Your task to perform on an android device: delete the emails in spam in the gmail app Image 0: 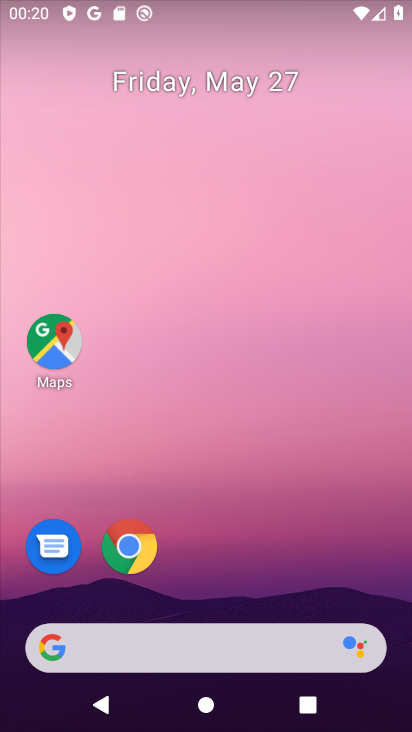
Step 0: drag from (319, 515) to (253, 137)
Your task to perform on an android device: delete the emails in spam in the gmail app Image 1: 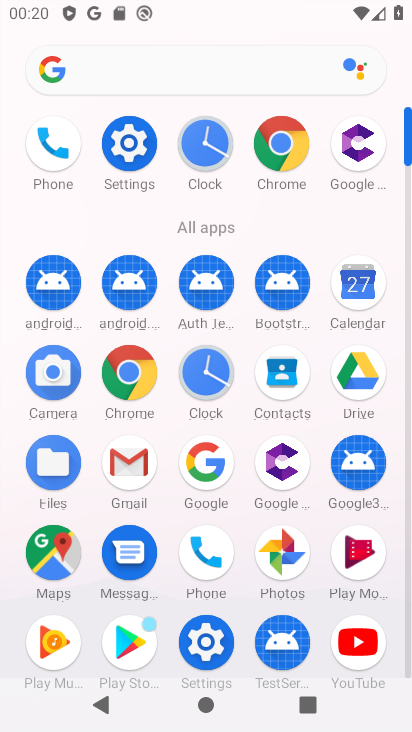
Step 1: click (123, 469)
Your task to perform on an android device: delete the emails in spam in the gmail app Image 2: 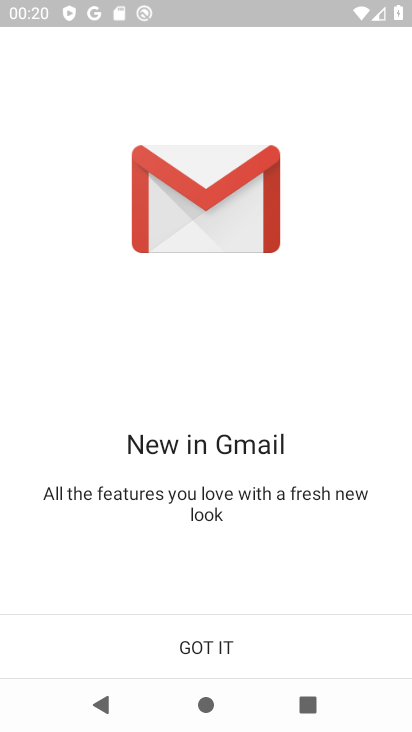
Step 2: click (230, 635)
Your task to perform on an android device: delete the emails in spam in the gmail app Image 3: 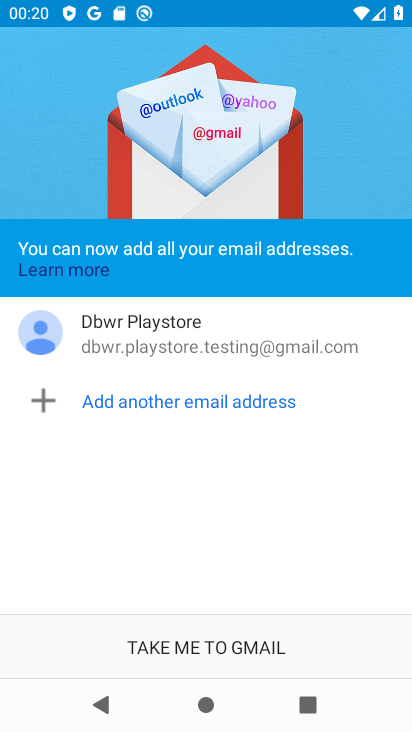
Step 3: click (229, 651)
Your task to perform on an android device: delete the emails in spam in the gmail app Image 4: 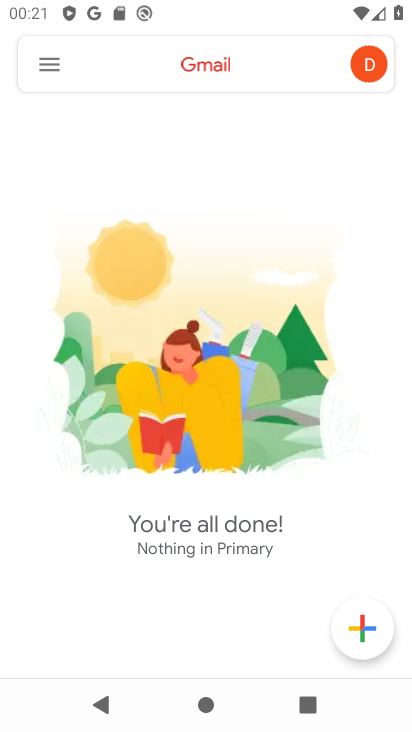
Step 4: click (48, 71)
Your task to perform on an android device: delete the emails in spam in the gmail app Image 5: 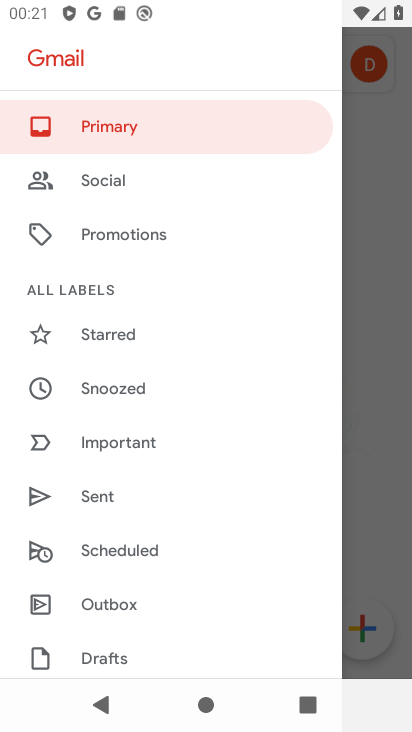
Step 5: drag from (210, 557) to (239, 188)
Your task to perform on an android device: delete the emails in spam in the gmail app Image 6: 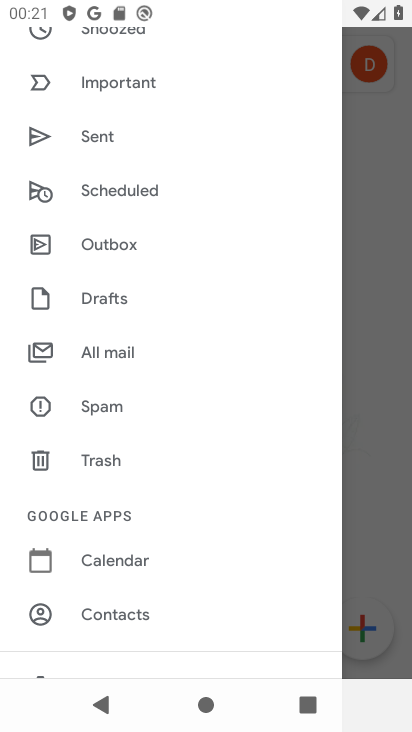
Step 6: click (164, 411)
Your task to perform on an android device: delete the emails in spam in the gmail app Image 7: 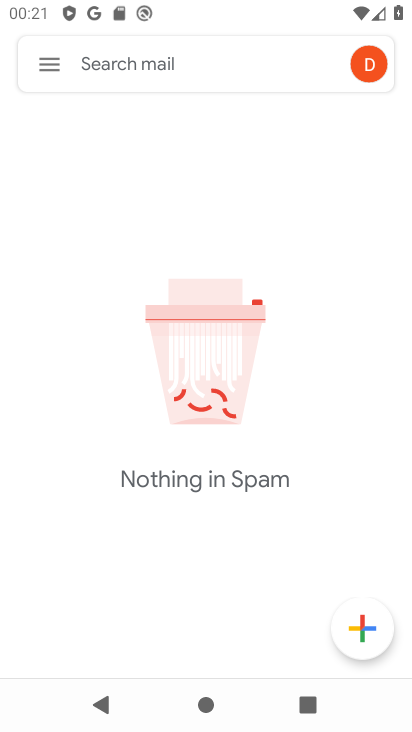
Step 7: task complete